Your task to perform on an android device: Open Amazon Image 0: 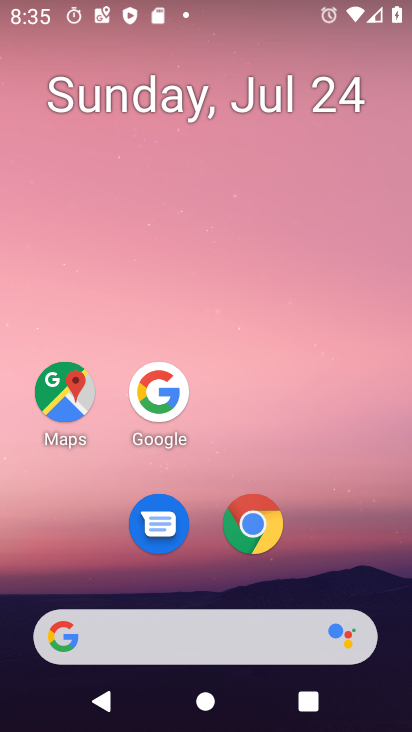
Step 0: press home button
Your task to perform on an android device: Open Amazon Image 1: 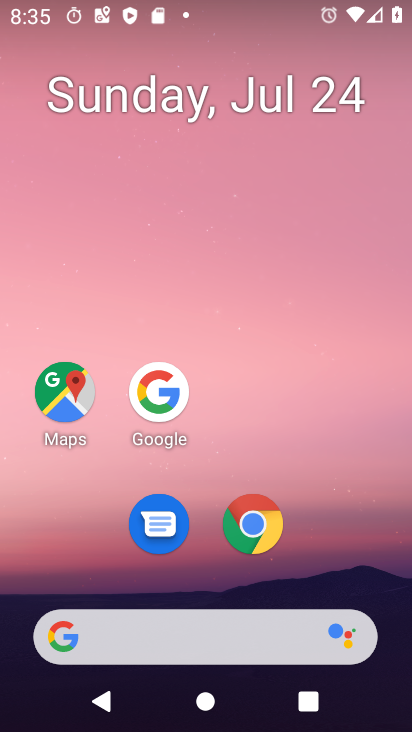
Step 1: click (252, 523)
Your task to perform on an android device: Open Amazon Image 2: 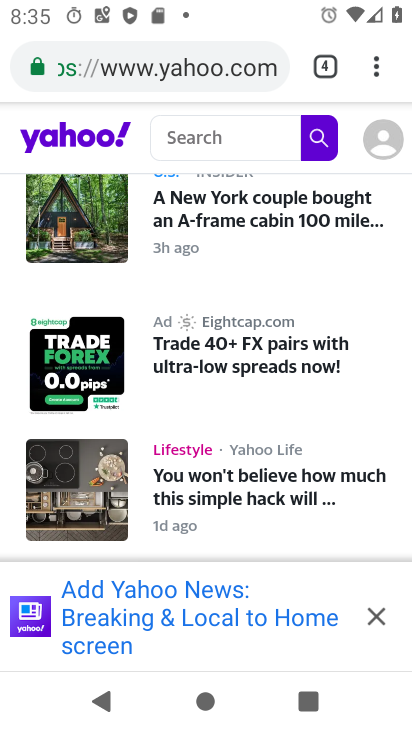
Step 2: drag from (377, 69) to (191, 142)
Your task to perform on an android device: Open Amazon Image 3: 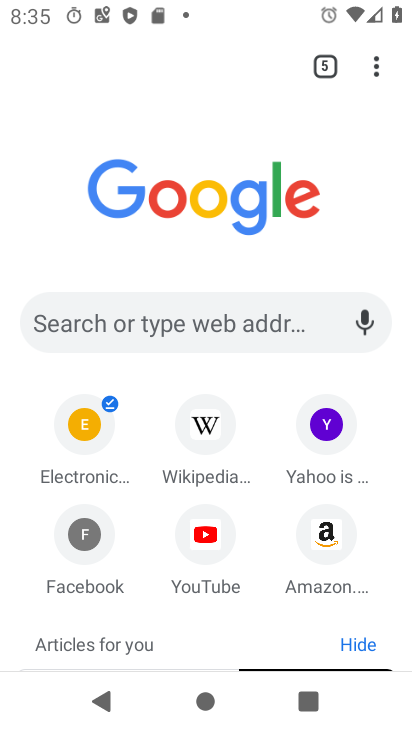
Step 3: click (332, 545)
Your task to perform on an android device: Open Amazon Image 4: 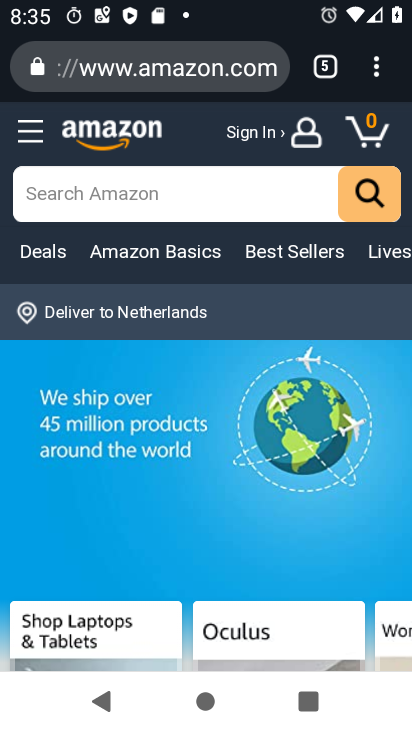
Step 4: task complete